Your task to perform on an android device: Turn off the flashlight Image 0: 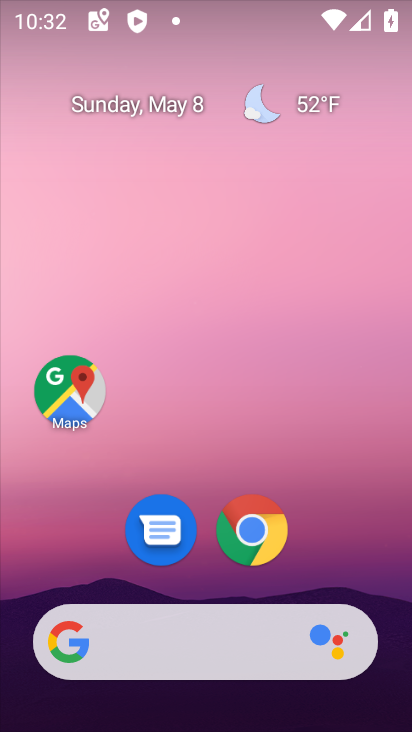
Step 0: drag from (381, 536) to (371, 200)
Your task to perform on an android device: Turn off the flashlight Image 1: 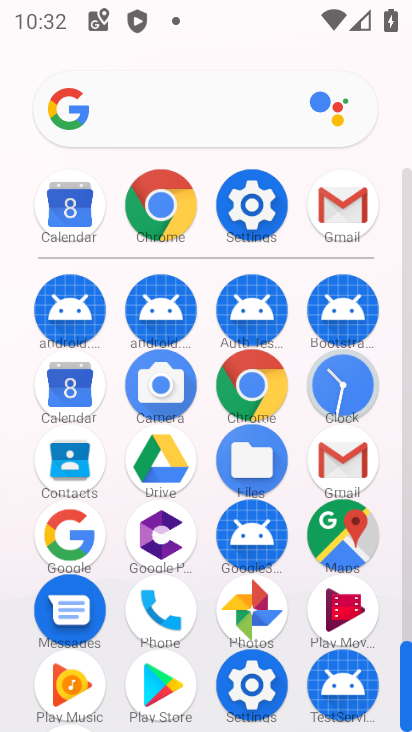
Step 1: click (276, 230)
Your task to perform on an android device: Turn off the flashlight Image 2: 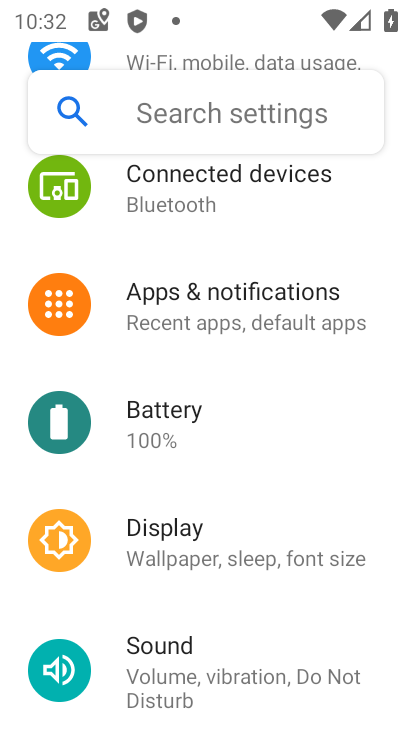
Step 2: click (245, 116)
Your task to perform on an android device: Turn off the flashlight Image 3: 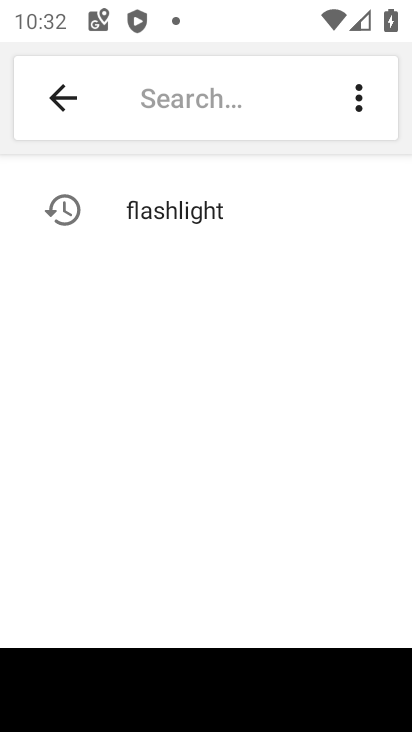
Step 3: click (189, 222)
Your task to perform on an android device: Turn off the flashlight Image 4: 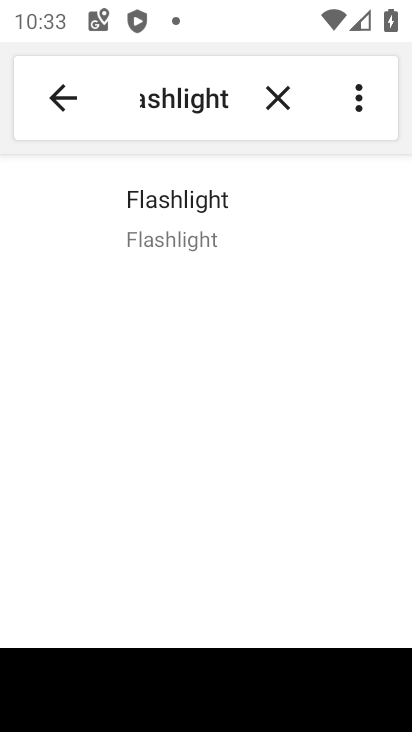
Step 4: task complete